Your task to perform on an android device: Do I have any events this weekend? Image 0: 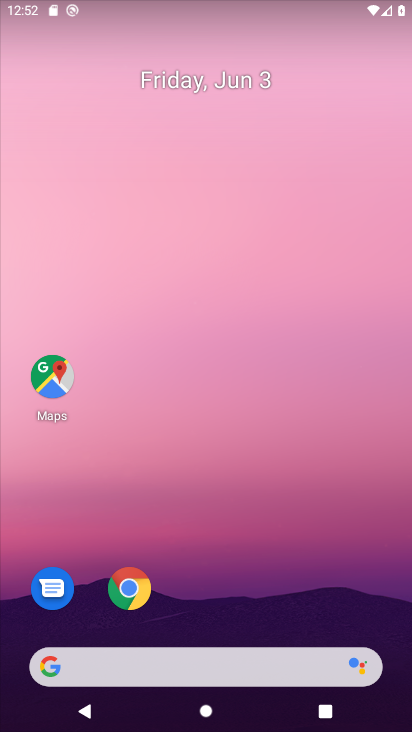
Step 0: drag from (267, 619) to (220, 143)
Your task to perform on an android device: Do I have any events this weekend? Image 1: 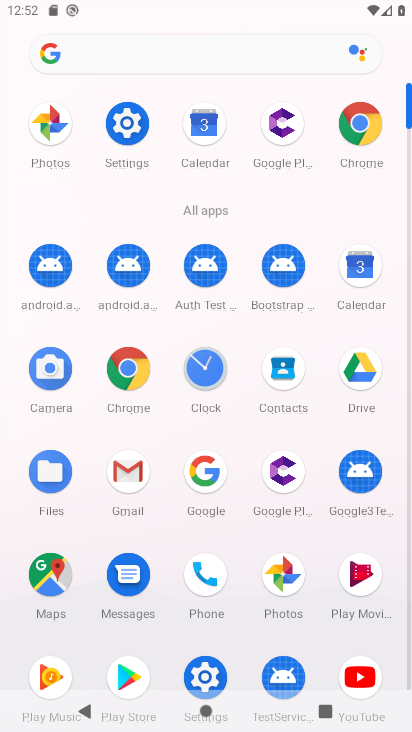
Step 1: click (216, 136)
Your task to perform on an android device: Do I have any events this weekend? Image 2: 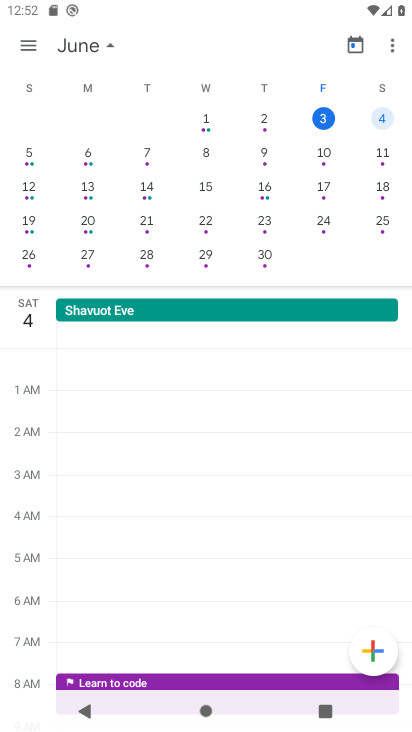
Step 2: click (25, 50)
Your task to perform on an android device: Do I have any events this weekend? Image 3: 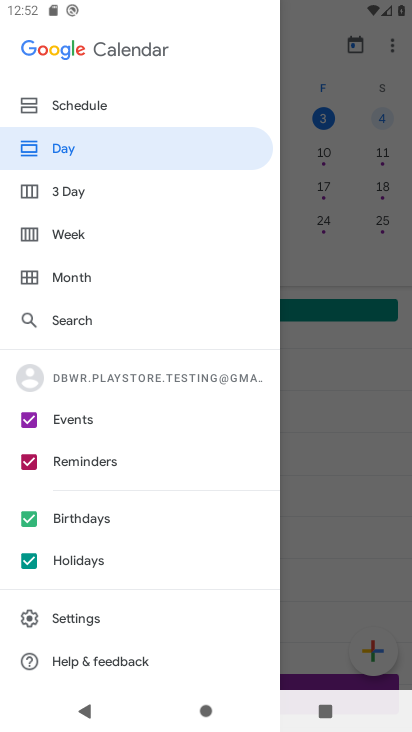
Step 3: click (27, 556)
Your task to perform on an android device: Do I have any events this weekend? Image 4: 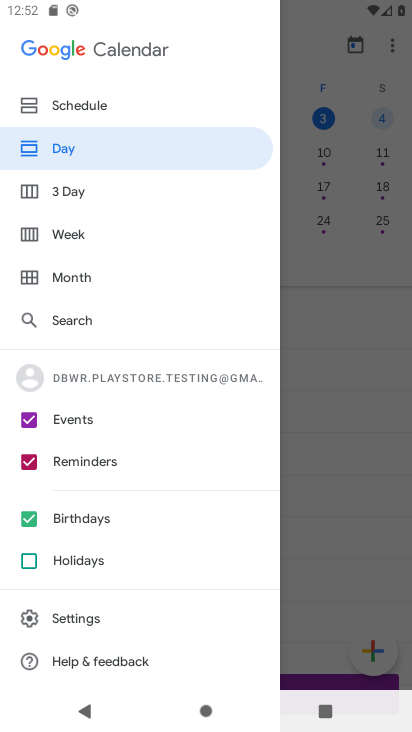
Step 4: click (30, 512)
Your task to perform on an android device: Do I have any events this weekend? Image 5: 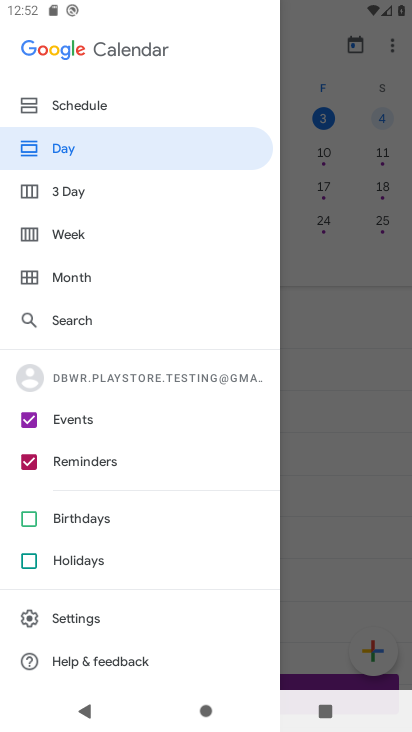
Step 5: click (30, 461)
Your task to perform on an android device: Do I have any events this weekend? Image 6: 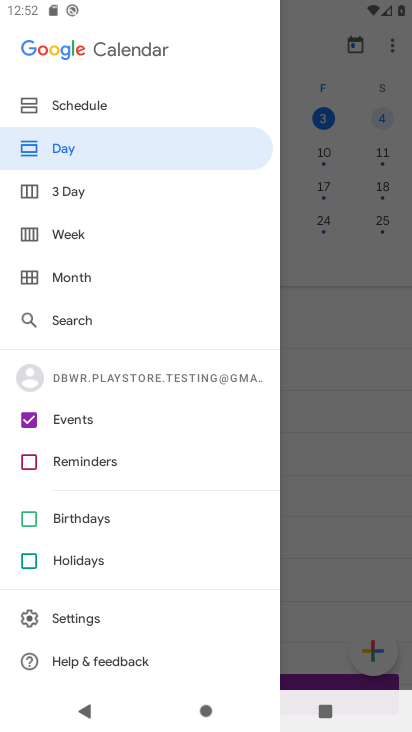
Step 6: click (71, 193)
Your task to perform on an android device: Do I have any events this weekend? Image 7: 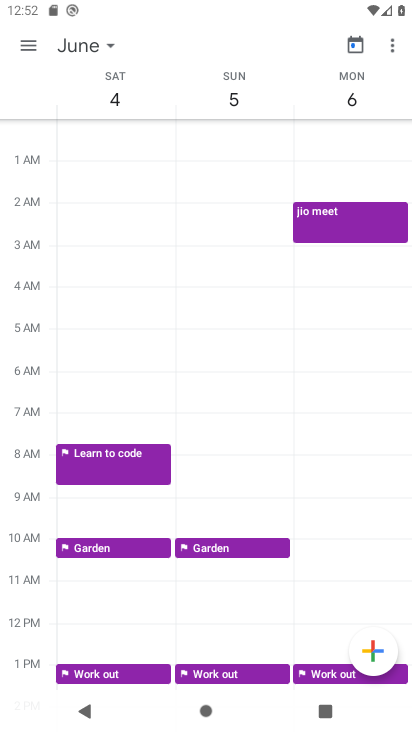
Step 7: task complete